Your task to perform on an android device: Open battery settings Image 0: 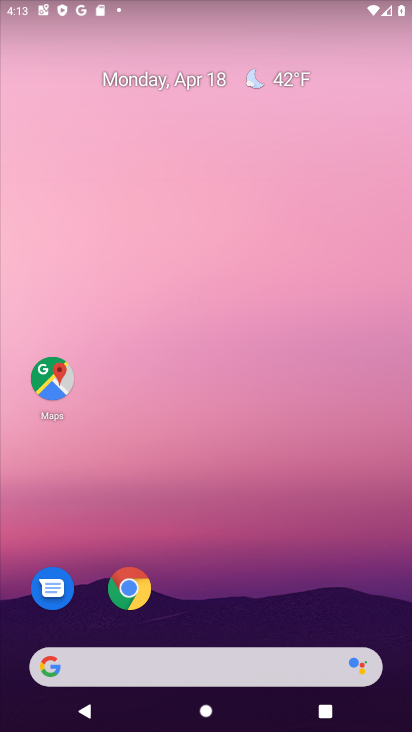
Step 0: press home button
Your task to perform on an android device: Open battery settings Image 1: 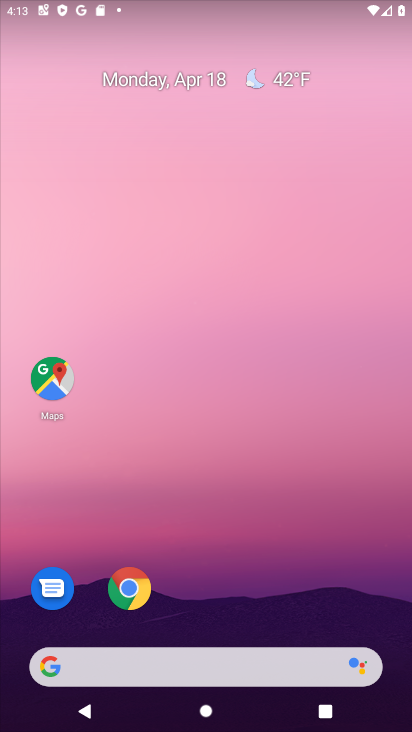
Step 1: drag from (253, 553) to (304, 167)
Your task to perform on an android device: Open battery settings Image 2: 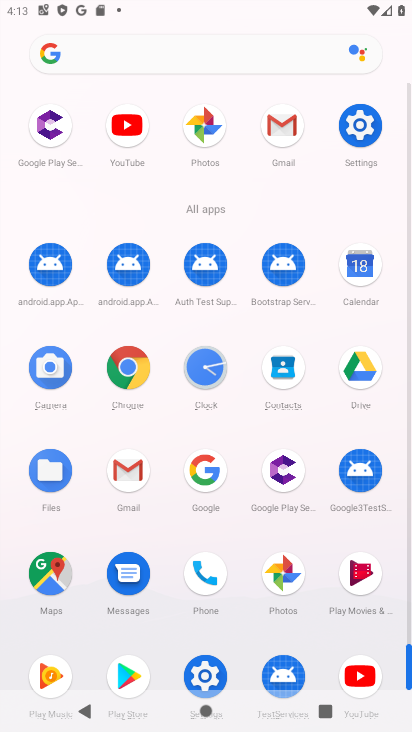
Step 2: click (362, 140)
Your task to perform on an android device: Open battery settings Image 3: 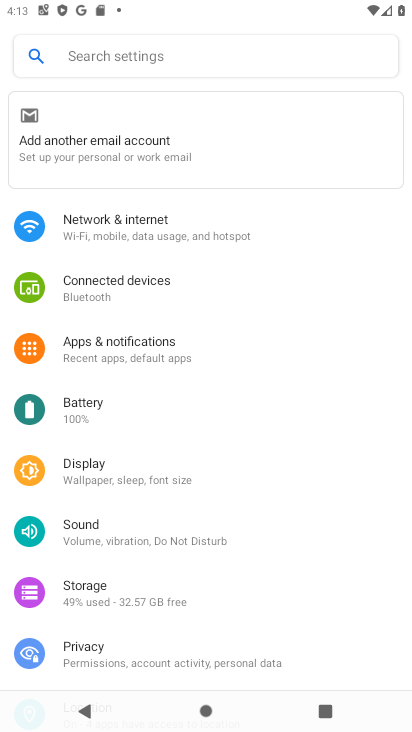
Step 3: click (119, 406)
Your task to perform on an android device: Open battery settings Image 4: 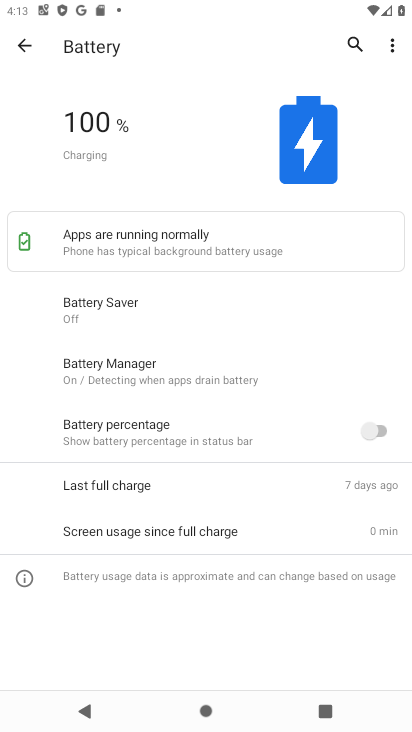
Step 4: task complete